Your task to perform on an android device: set an alarm Image 0: 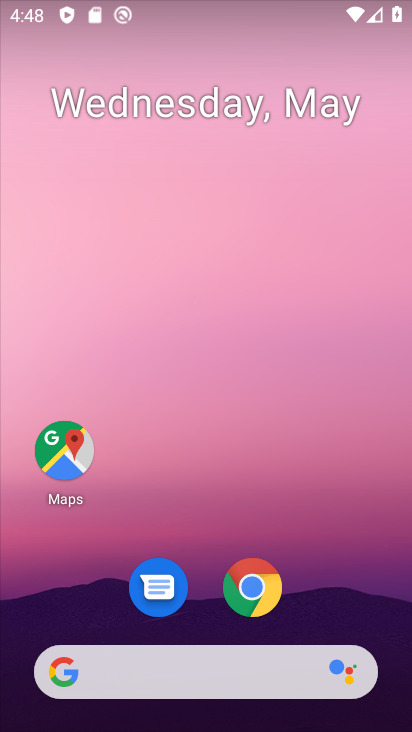
Step 0: drag from (269, 707) to (144, 100)
Your task to perform on an android device: set an alarm Image 1: 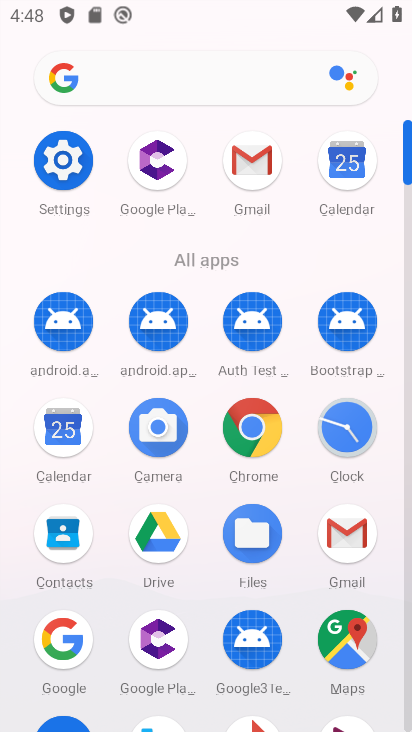
Step 1: click (355, 422)
Your task to perform on an android device: set an alarm Image 2: 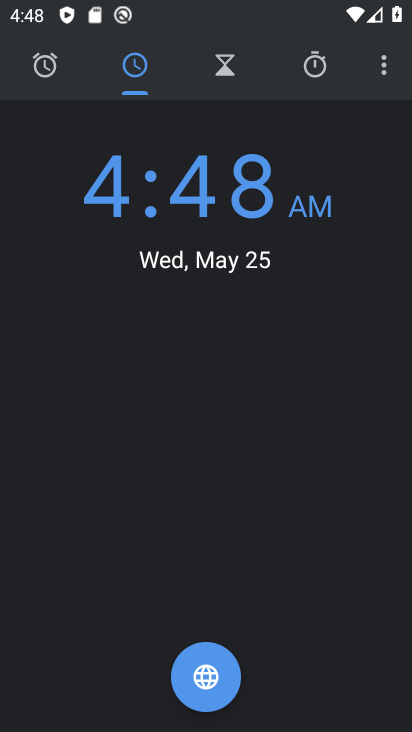
Step 2: click (38, 63)
Your task to perform on an android device: set an alarm Image 3: 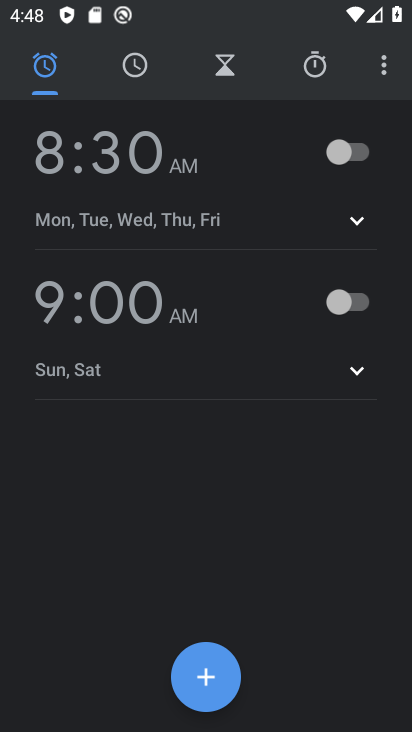
Step 3: click (337, 148)
Your task to perform on an android device: set an alarm Image 4: 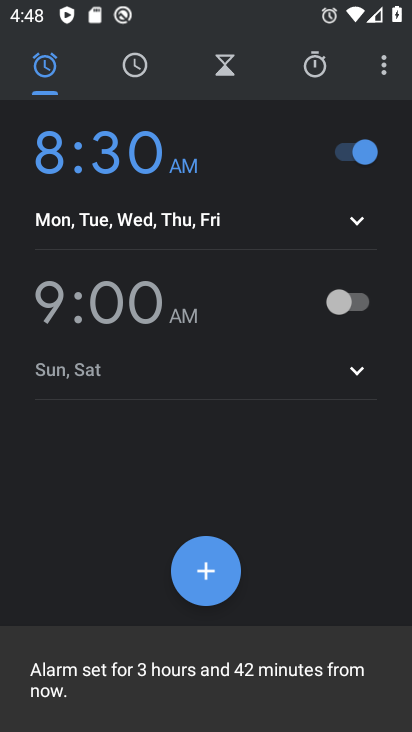
Step 4: task complete